Your task to perform on an android device: Open calendar and show me the third week of next month Image 0: 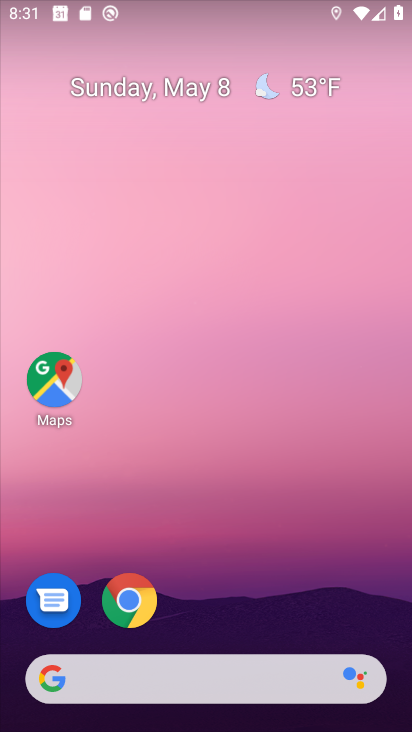
Step 0: drag from (249, 587) to (241, 228)
Your task to perform on an android device: Open calendar and show me the third week of next month Image 1: 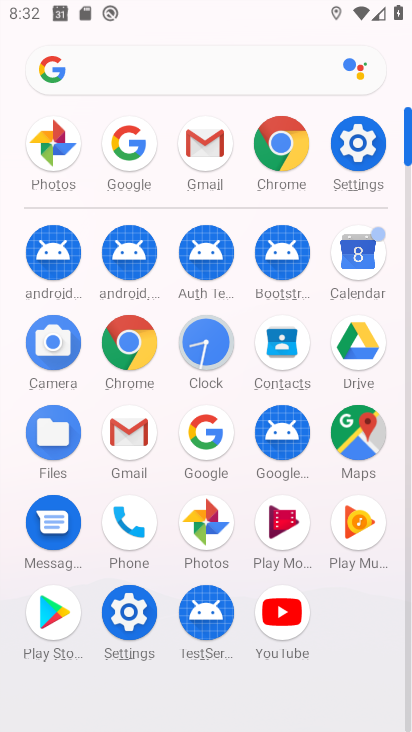
Step 1: click (342, 257)
Your task to perform on an android device: Open calendar and show me the third week of next month Image 2: 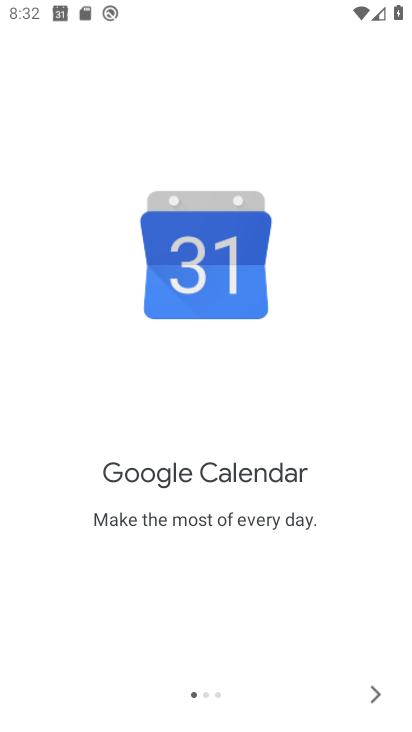
Step 2: click (370, 708)
Your task to perform on an android device: Open calendar and show me the third week of next month Image 3: 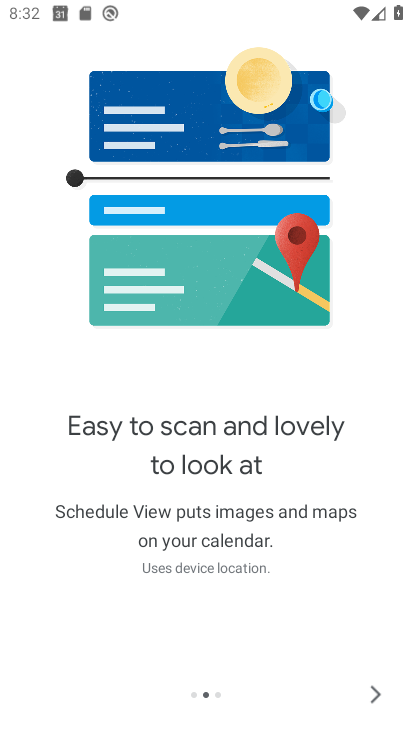
Step 3: click (367, 708)
Your task to perform on an android device: Open calendar and show me the third week of next month Image 4: 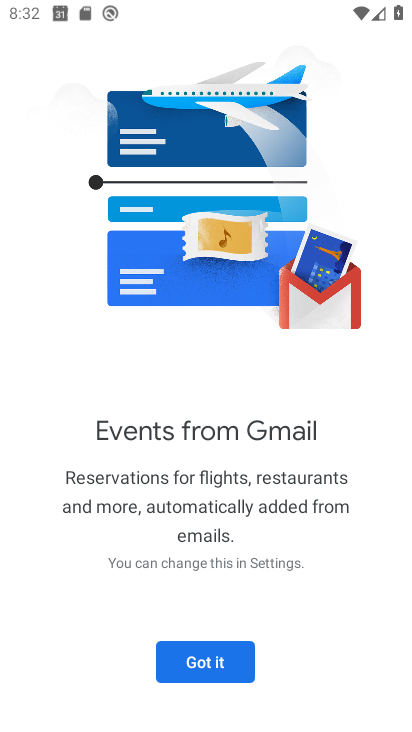
Step 4: click (234, 646)
Your task to perform on an android device: Open calendar and show me the third week of next month Image 5: 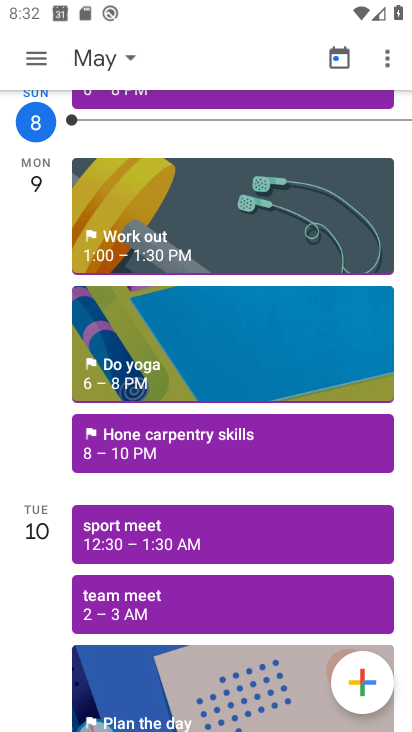
Step 5: click (125, 53)
Your task to perform on an android device: Open calendar and show me the third week of next month Image 6: 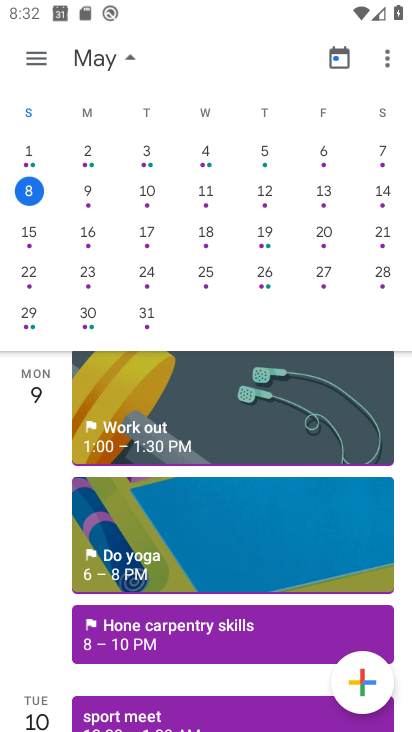
Step 6: drag from (313, 255) to (0, 302)
Your task to perform on an android device: Open calendar and show me the third week of next month Image 7: 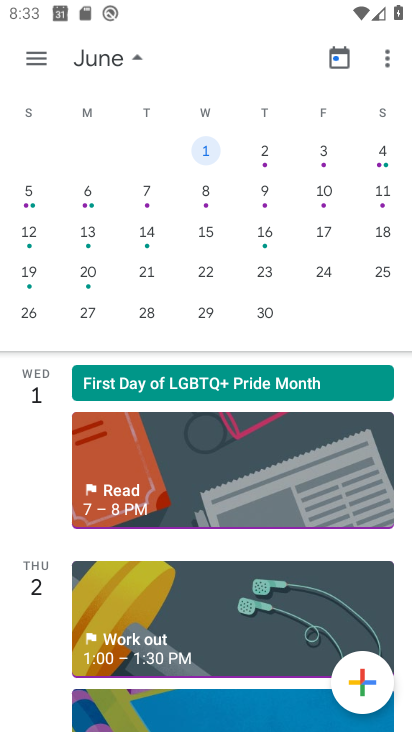
Step 7: click (33, 274)
Your task to perform on an android device: Open calendar and show me the third week of next month Image 8: 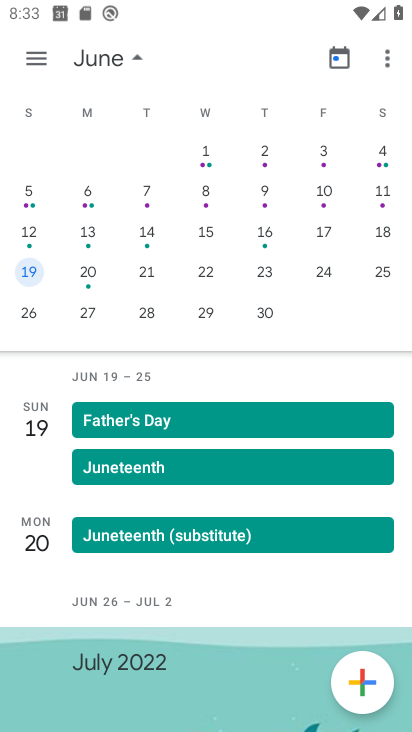
Step 8: task complete